Your task to perform on an android device: delete a single message in the gmail app Image 0: 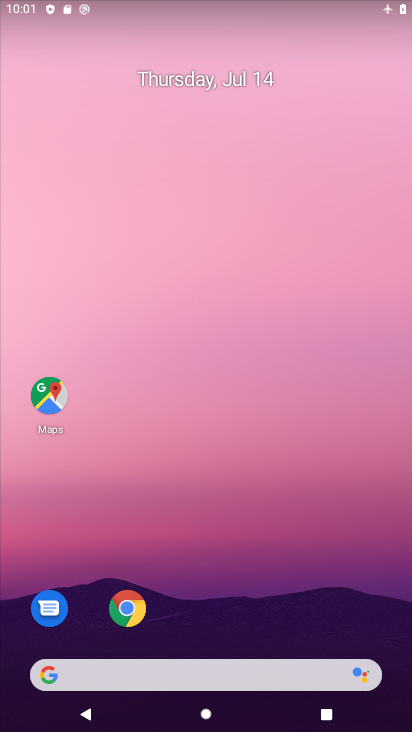
Step 0: drag from (231, 633) to (338, 25)
Your task to perform on an android device: delete a single message in the gmail app Image 1: 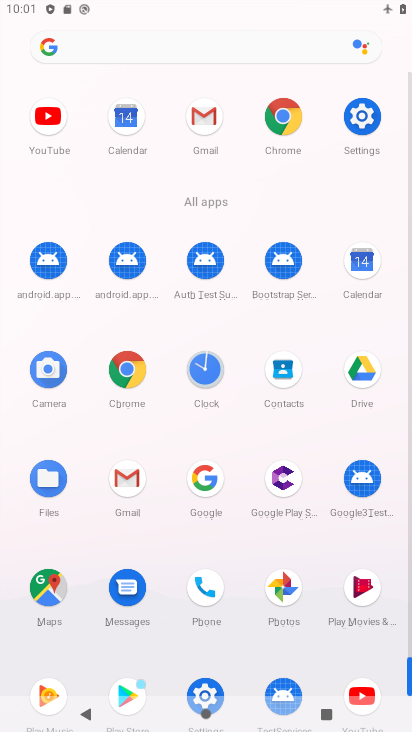
Step 1: click (116, 484)
Your task to perform on an android device: delete a single message in the gmail app Image 2: 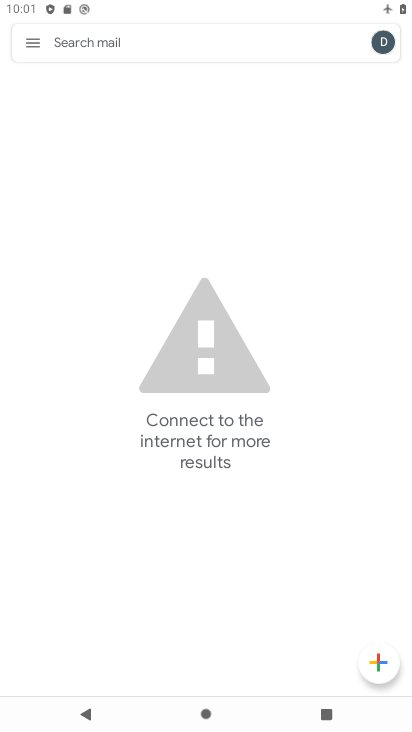
Step 2: click (26, 39)
Your task to perform on an android device: delete a single message in the gmail app Image 3: 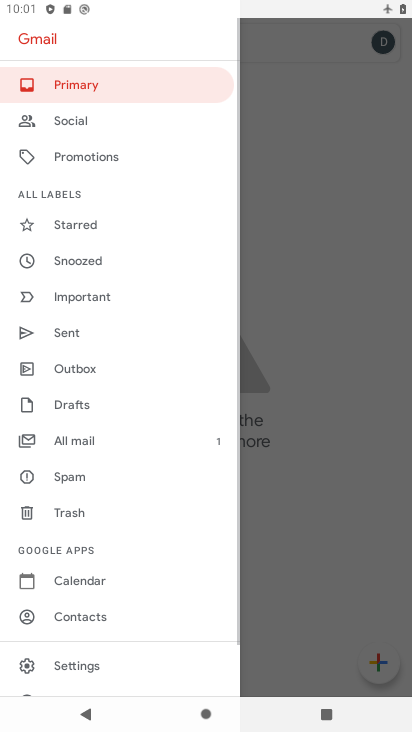
Step 3: click (102, 82)
Your task to perform on an android device: delete a single message in the gmail app Image 4: 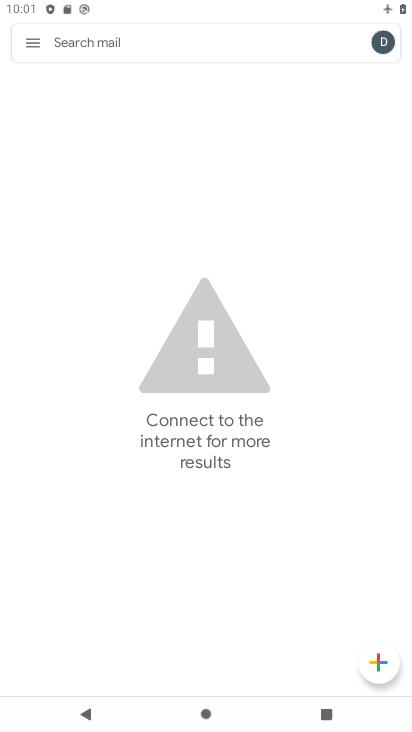
Step 4: task complete